Your task to perform on an android device: open the mobile data screen to see how much data has been used Image 0: 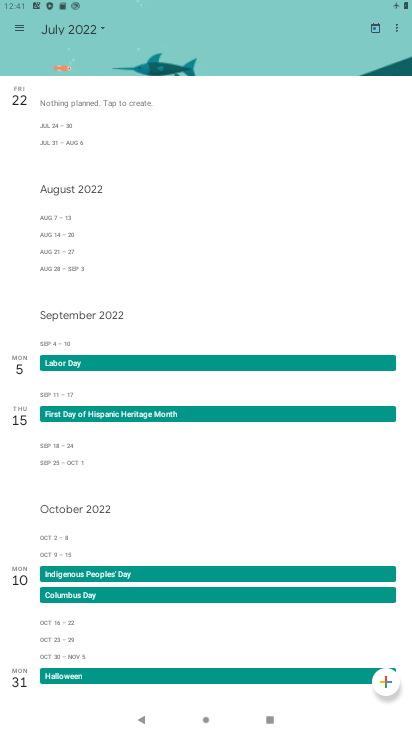
Step 0: press home button
Your task to perform on an android device: open the mobile data screen to see how much data has been used Image 1: 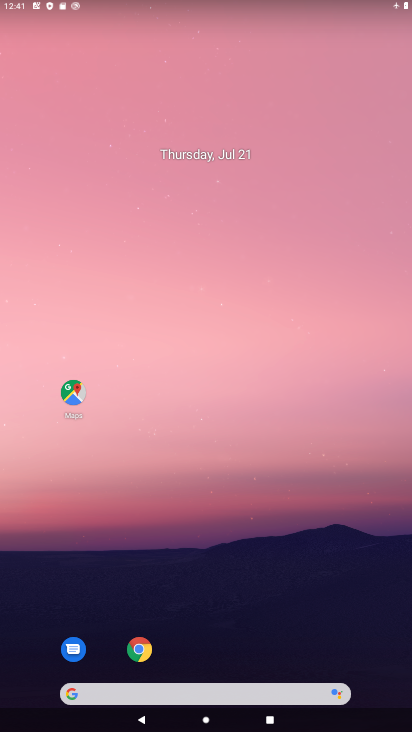
Step 1: drag from (218, 723) to (203, 207)
Your task to perform on an android device: open the mobile data screen to see how much data has been used Image 2: 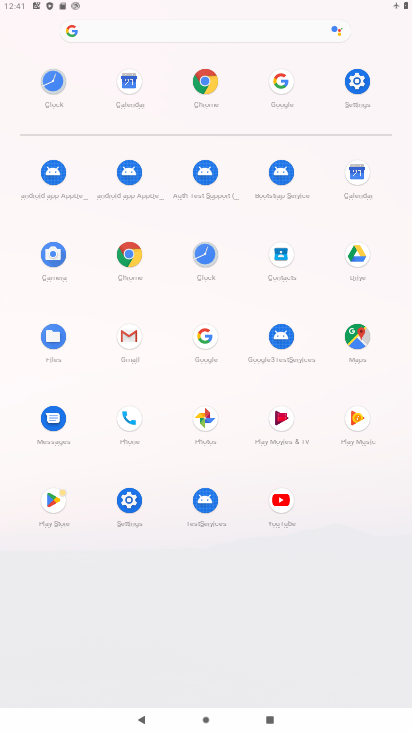
Step 2: click (360, 86)
Your task to perform on an android device: open the mobile data screen to see how much data has been used Image 3: 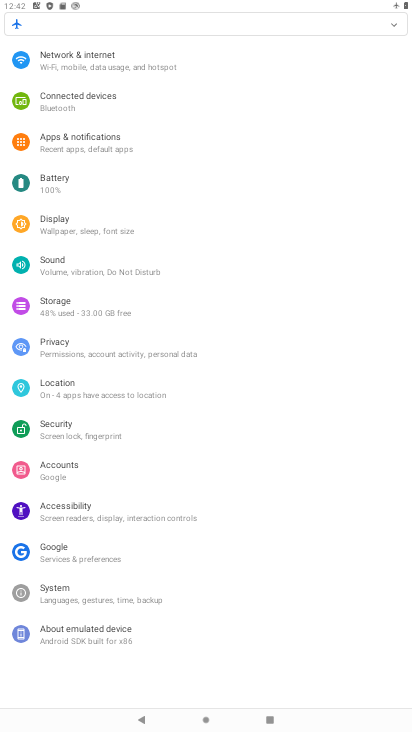
Step 3: click (91, 55)
Your task to perform on an android device: open the mobile data screen to see how much data has been used Image 4: 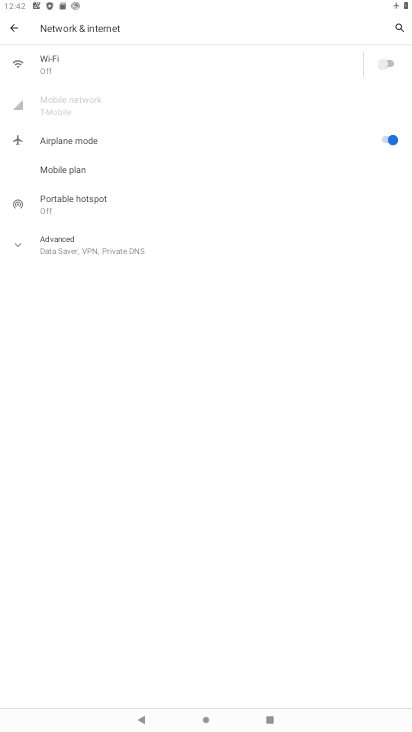
Step 4: click (389, 140)
Your task to perform on an android device: open the mobile data screen to see how much data has been used Image 5: 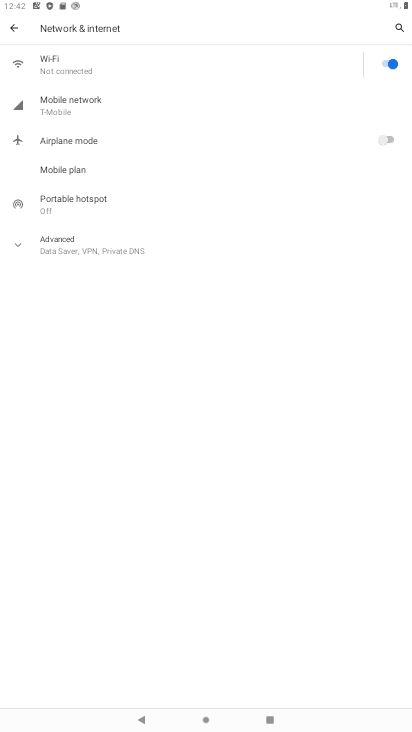
Step 5: click (62, 100)
Your task to perform on an android device: open the mobile data screen to see how much data has been used Image 6: 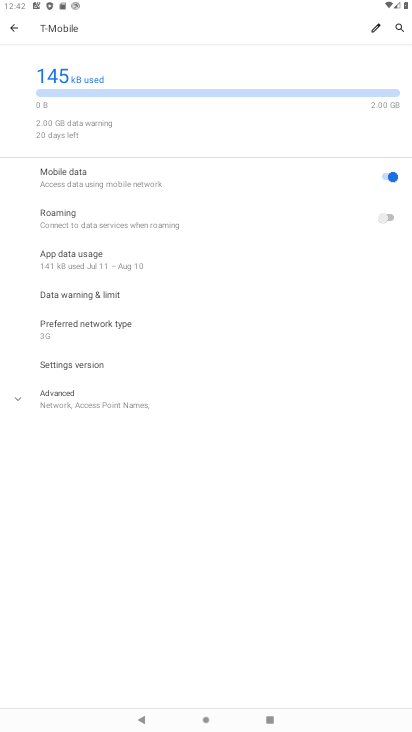
Step 6: click (90, 266)
Your task to perform on an android device: open the mobile data screen to see how much data has been used Image 7: 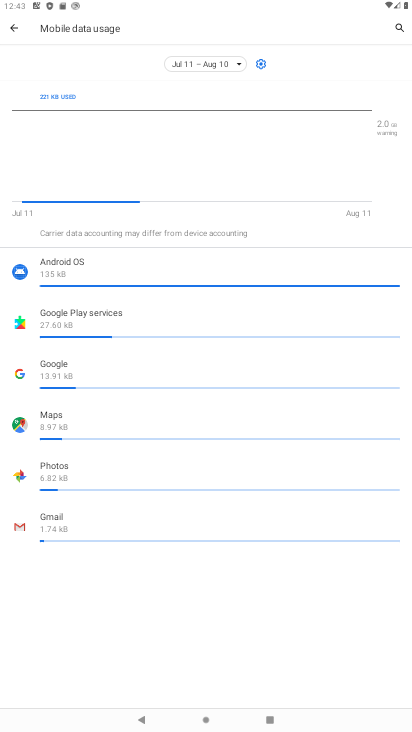
Step 7: task complete